Your task to perform on an android device: change the clock display to analog Image 0: 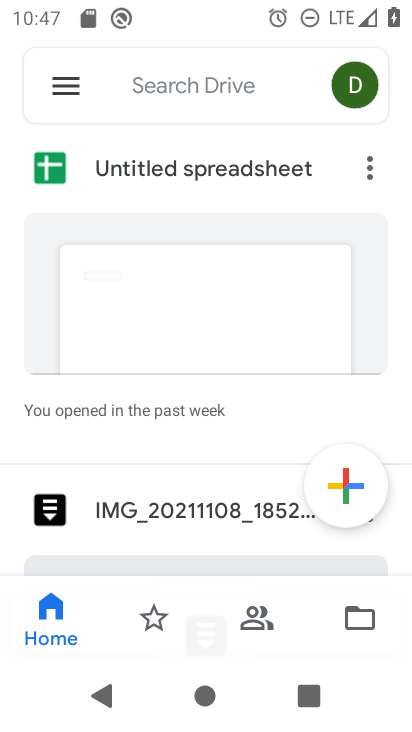
Step 0: press home button
Your task to perform on an android device: change the clock display to analog Image 1: 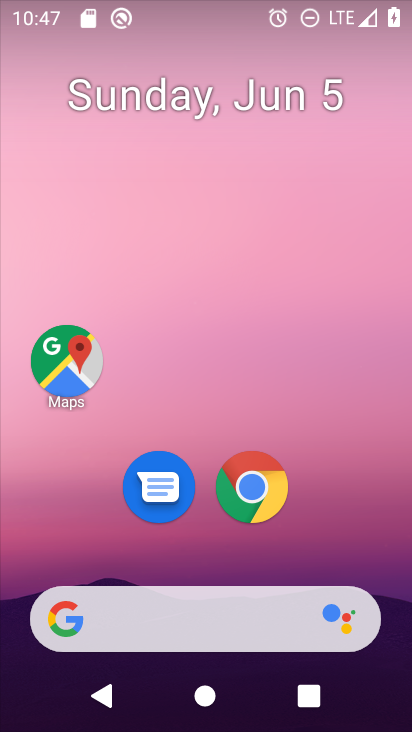
Step 1: drag from (301, 493) to (272, 163)
Your task to perform on an android device: change the clock display to analog Image 2: 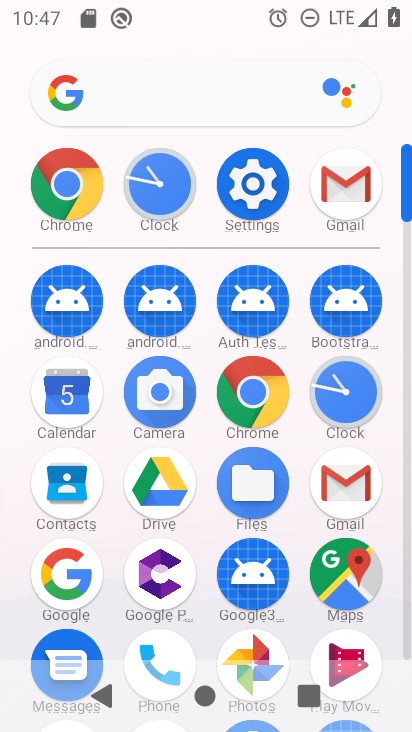
Step 2: click (355, 384)
Your task to perform on an android device: change the clock display to analog Image 3: 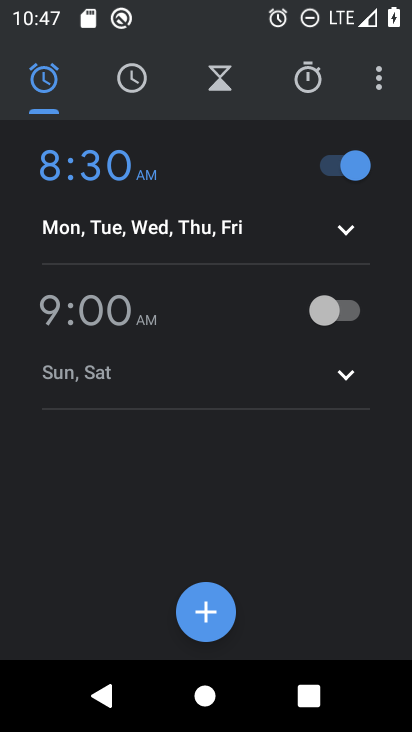
Step 3: click (372, 78)
Your task to perform on an android device: change the clock display to analog Image 4: 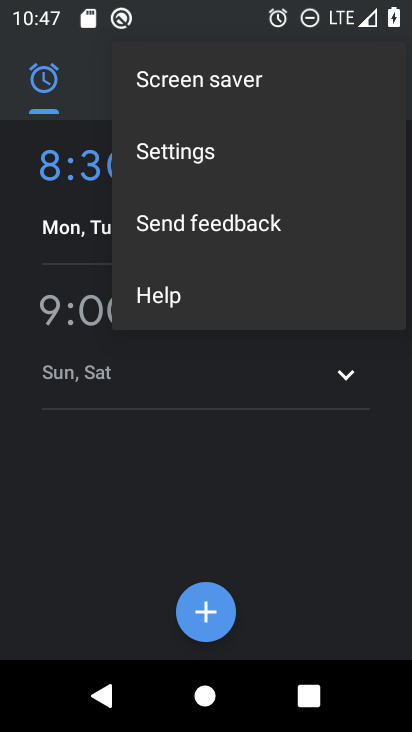
Step 4: click (225, 167)
Your task to perform on an android device: change the clock display to analog Image 5: 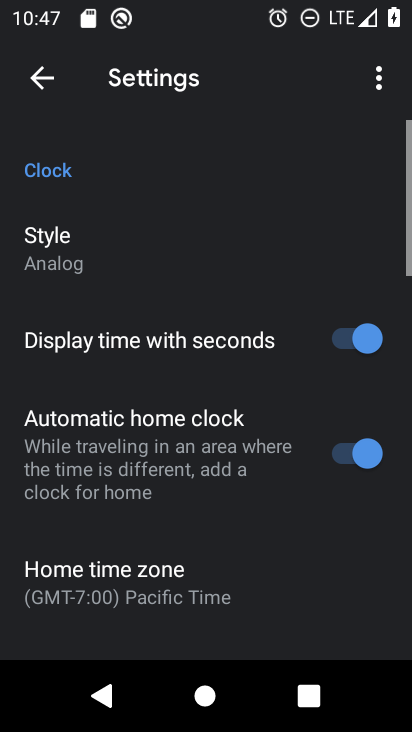
Step 5: click (106, 246)
Your task to perform on an android device: change the clock display to analog Image 6: 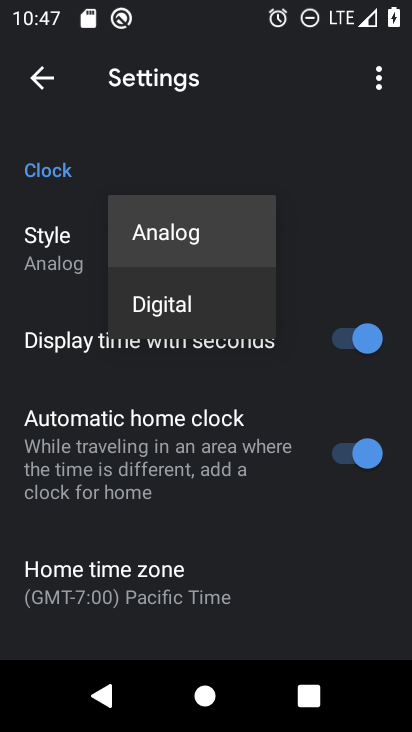
Step 6: click (178, 303)
Your task to perform on an android device: change the clock display to analog Image 7: 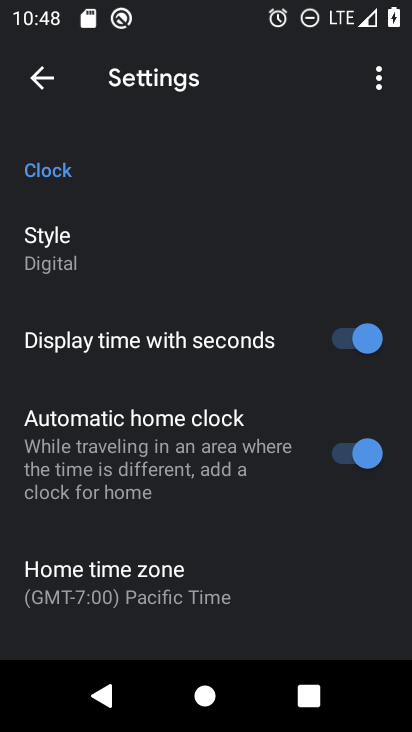
Step 7: task complete